Your task to perform on an android device: Find coffee shops on Maps Image 0: 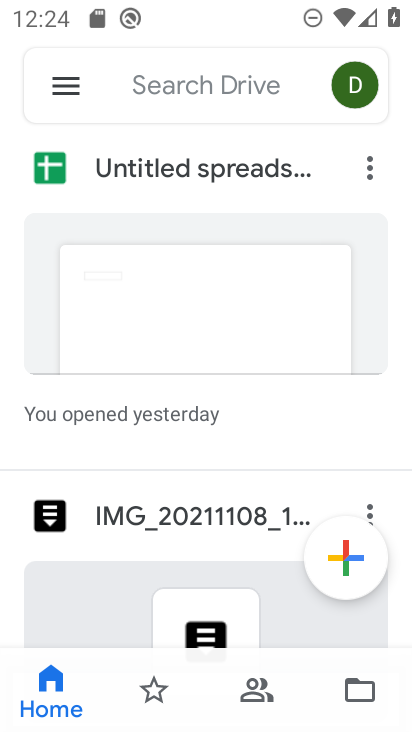
Step 0: press home button
Your task to perform on an android device: Find coffee shops on Maps Image 1: 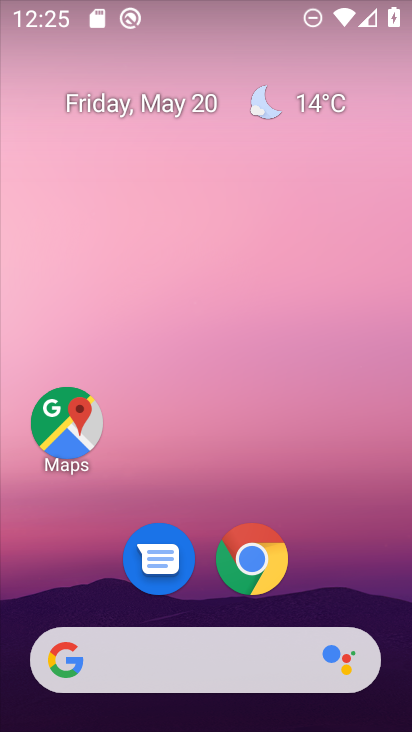
Step 1: click (84, 421)
Your task to perform on an android device: Find coffee shops on Maps Image 2: 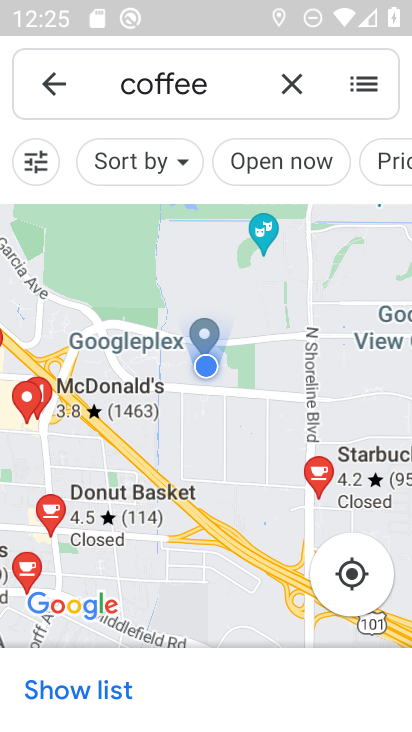
Step 2: task complete